Your task to perform on an android device: Go to settings Image 0: 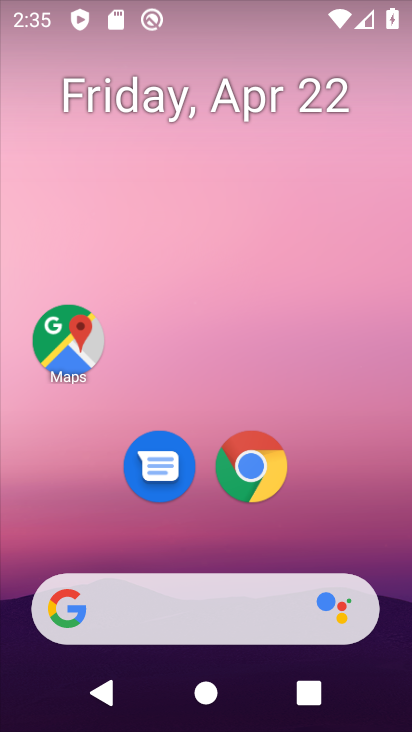
Step 0: drag from (260, 646) to (223, 49)
Your task to perform on an android device: Go to settings Image 1: 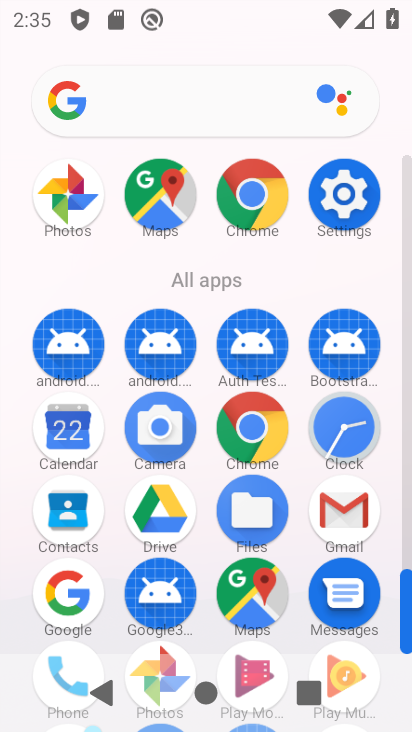
Step 1: click (343, 194)
Your task to perform on an android device: Go to settings Image 2: 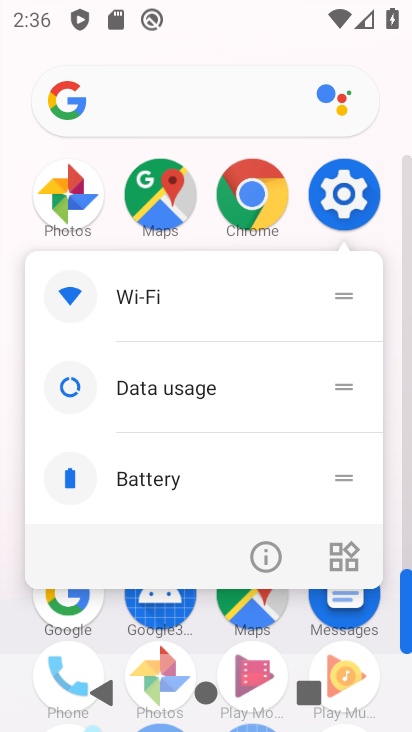
Step 2: click (348, 194)
Your task to perform on an android device: Go to settings Image 3: 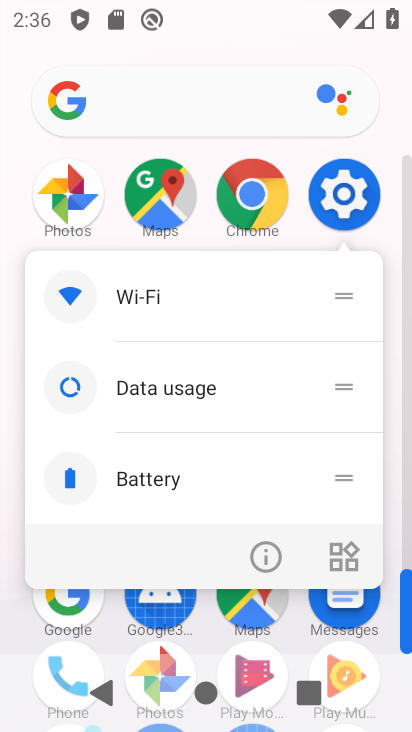
Step 3: click (348, 194)
Your task to perform on an android device: Go to settings Image 4: 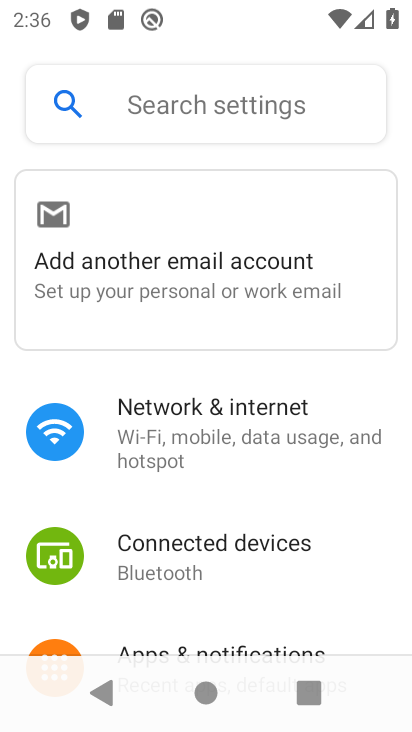
Step 4: task complete